Your task to perform on an android device: Open Yahoo.com Image 0: 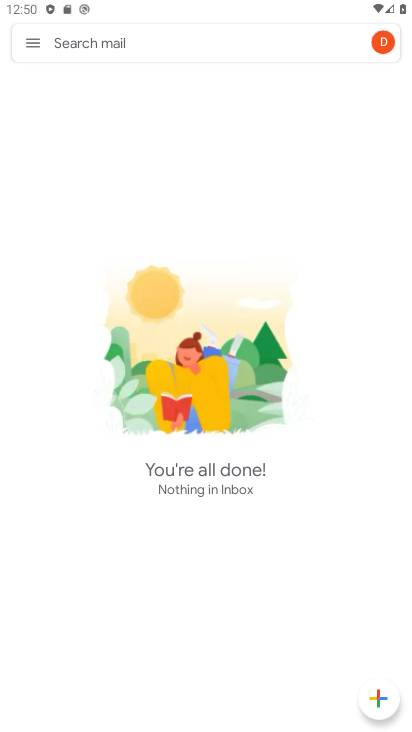
Step 0: press home button
Your task to perform on an android device: Open Yahoo.com Image 1: 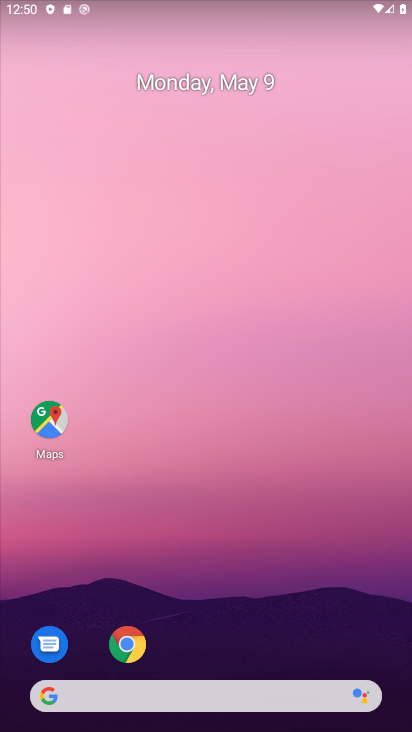
Step 1: click (264, 381)
Your task to perform on an android device: Open Yahoo.com Image 2: 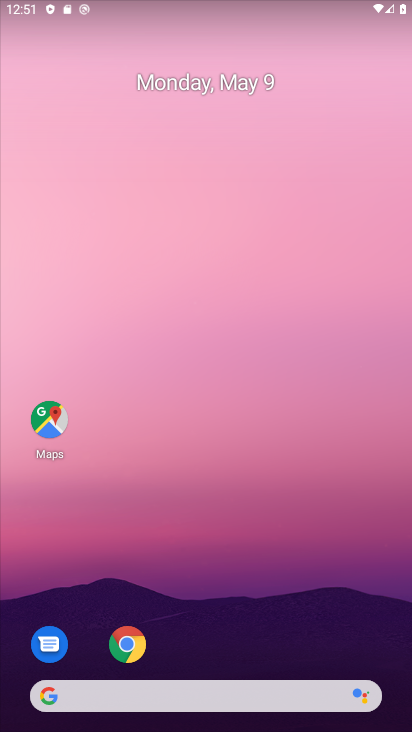
Step 2: click (131, 662)
Your task to perform on an android device: Open Yahoo.com Image 3: 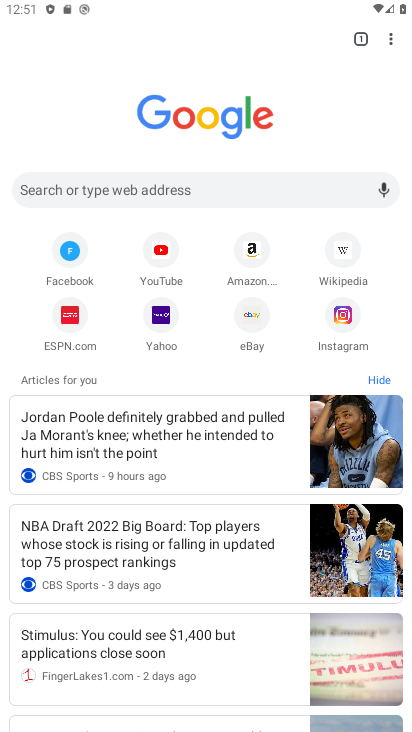
Step 3: click (166, 328)
Your task to perform on an android device: Open Yahoo.com Image 4: 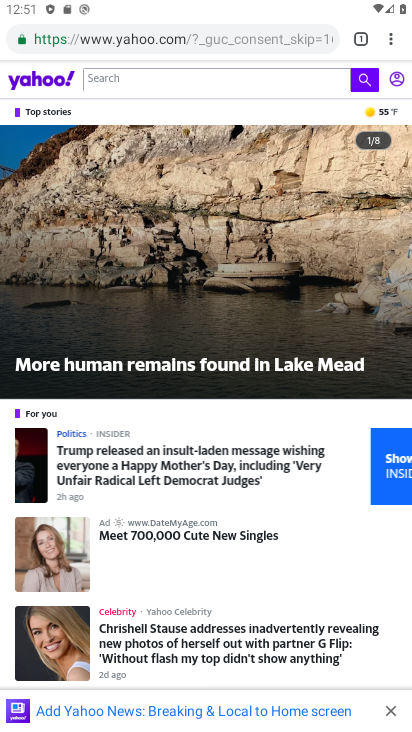
Step 4: task complete